Your task to perform on an android device: turn on data saver in the chrome app Image 0: 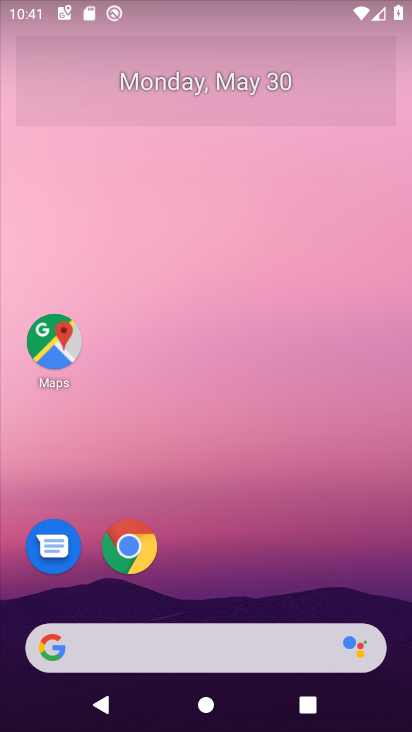
Step 0: click (137, 542)
Your task to perform on an android device: turn on data saver in the chrome app Image 1: 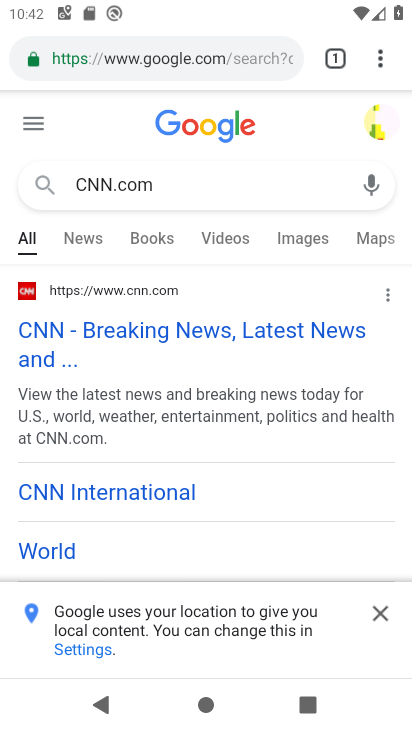
Step 1: click (393, 67)
Your task to perform on an android device: turn on data saver in the chrome app Image 2: 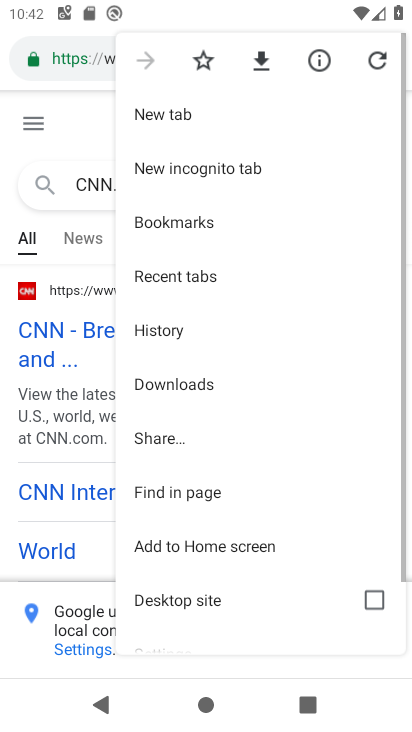
Step 2: drag from (229, 579) to (224, 356)
Your task to perform on an android device: turn on data saver in the chrome app Image 3: 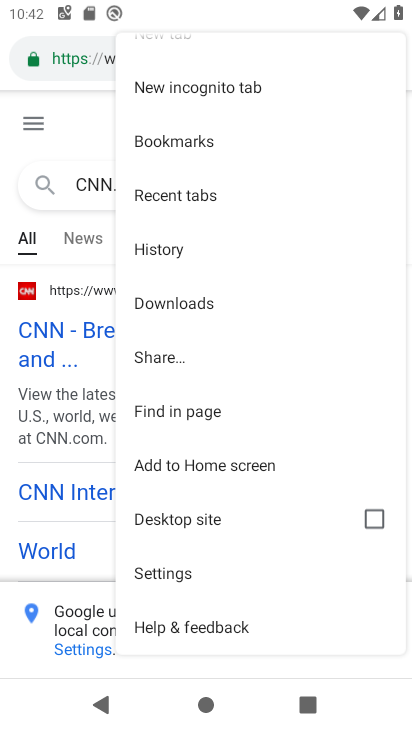
Step 3: click (169, 573)
Your task to perform on an android device: turn on data saver in the chrome app Image 4: 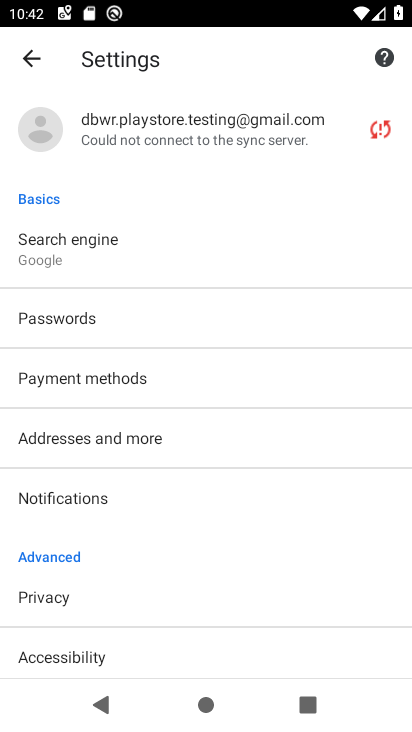
Step 4: drag from (129, 567) to (153, 307)
Your task to perform on an android device: turn on data saver in the chrome app Image 5: 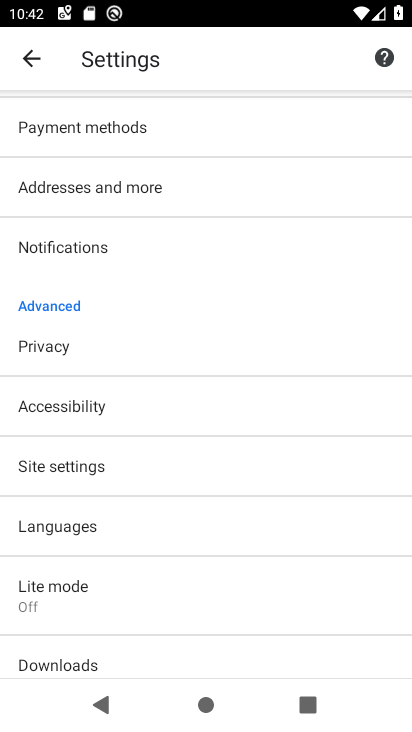
Step 5: click (67, 604)
Your task to perform on an android device: turn on data saver in the chrome app Image 6: 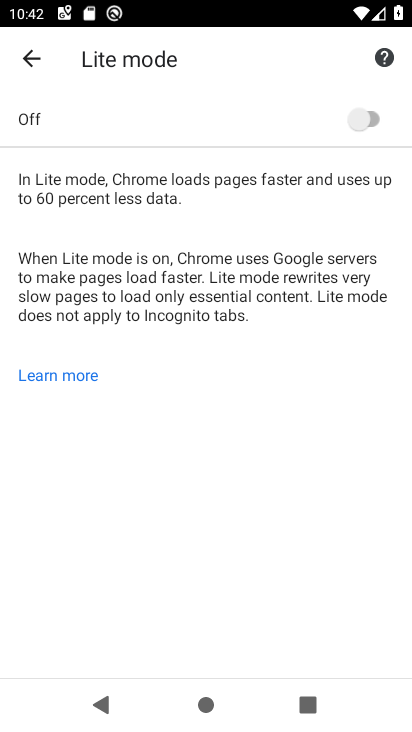
Step 6: click (351, 114)
Your task to perform on an android device: turn on data saver in the chrome app Image 7: 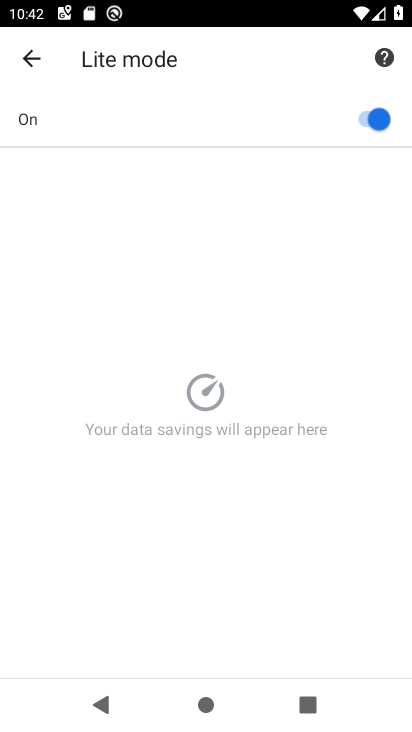
Step 7: task complete